Your task to perform on an android device: turn on javascript in the chrome app Image 0: 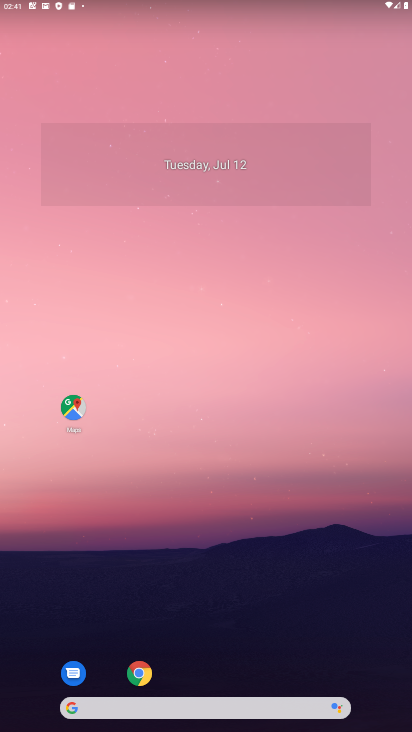
Step 0: press home button
Your task to perform on an android device: turn on javascript in the chrome app Image 1: 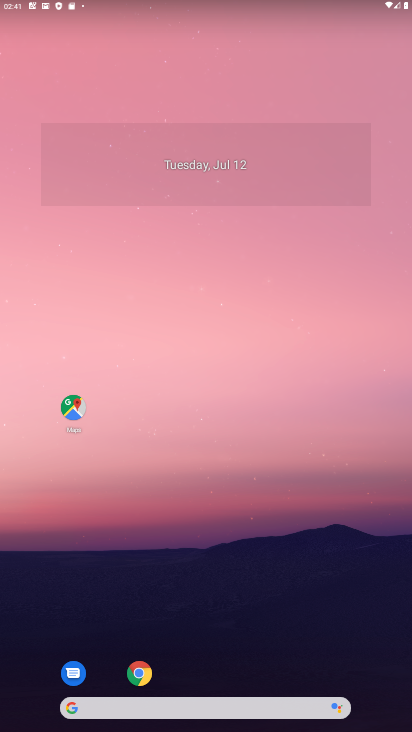
Step 1: drag from (295, 628) to (304, 10)
Your task to perform on an android device: turn on javascript in the chrome app Image 2: 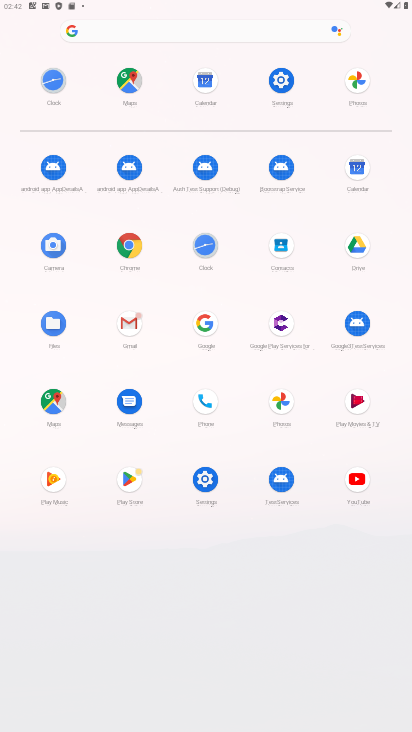
Step 2: click (132, 244)
Your task to perform on an android device: turn on javascript in the chrome app Image 3: 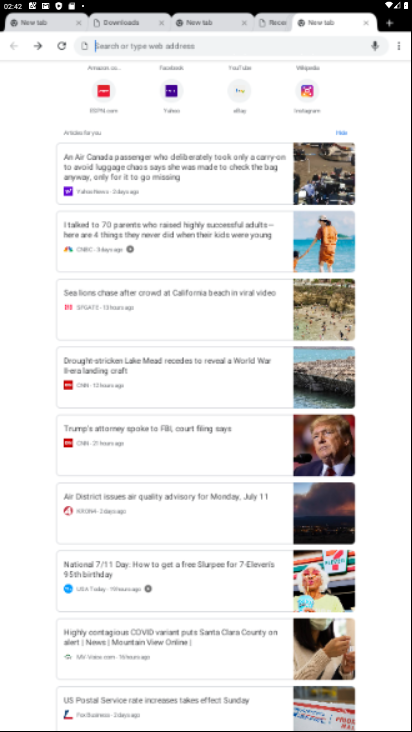
Step 3: drag from (399, 42) to (319, 215)
Your task to perform on an android device: turn on javascript in the chrome app Image 4: 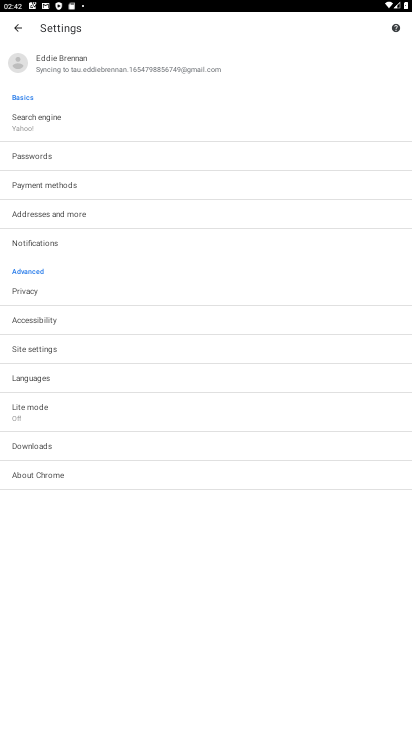
Step 4: click (64, 351)
Your task to perform on an android device: turn on javascript in the chrome app Image 5: 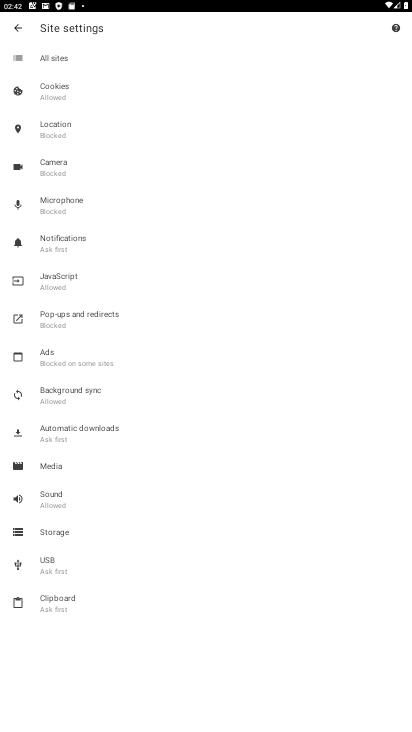
Step 5: click (56, 282)
Your task to perform on an android device: turn on javascript in the chrome app Image 6: 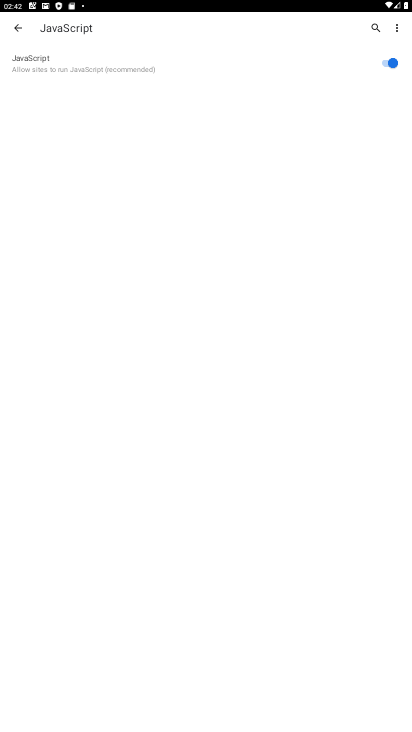
Step 6: task complete